Your task to perform on an android device: change text size in settings app Image 0: 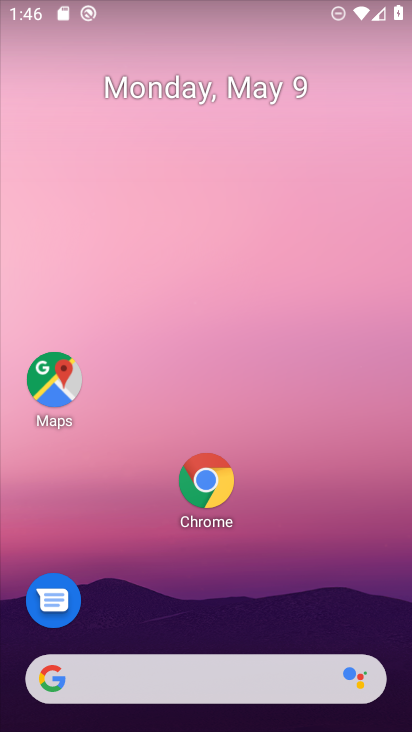
Step 0: drag from (194, 674) to (344, 131)
Your task to perform on an android device: change text size in settings app Image 1: 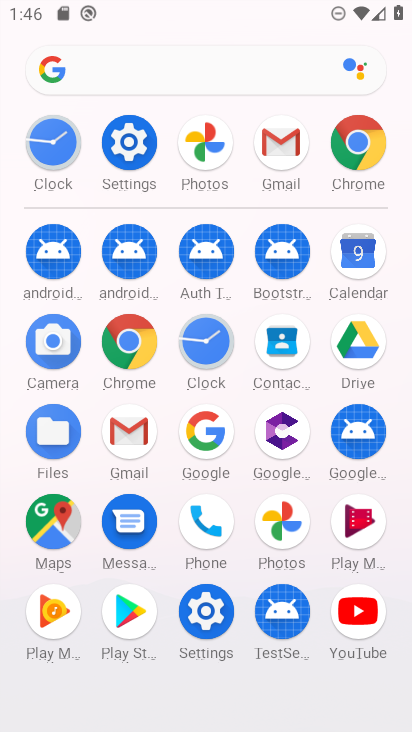
Step 1: click (125, 145)
Your task to perform on an android device: change text size in settings app Image 2: 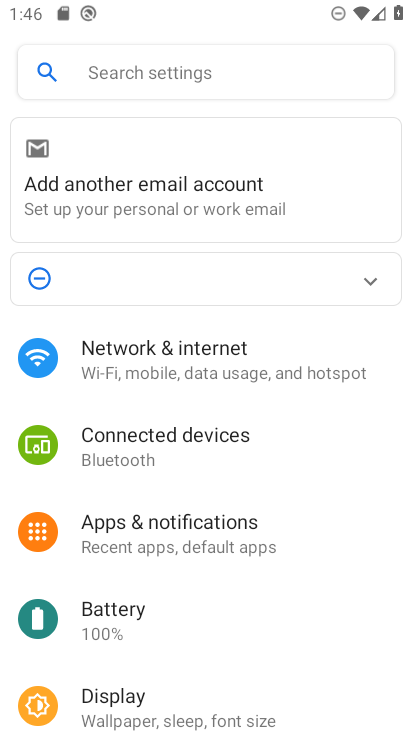
Step 2: drag from (203, 558) to (334, 275)
Your task to perform on an android device: change text size in settings app Image 3: 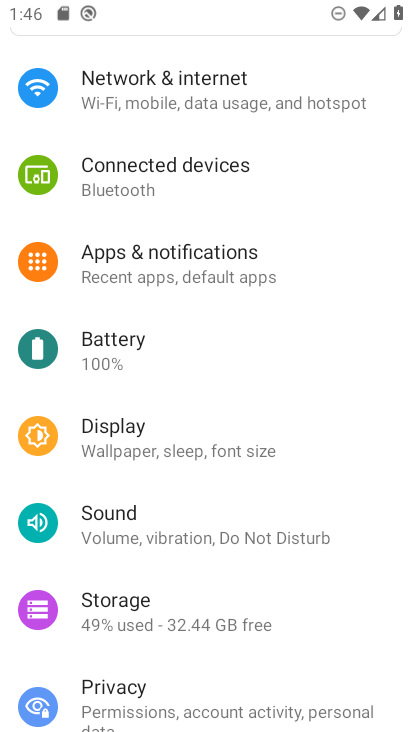
Step 3: click (216, 446)
Your task to perform on an android device: change text size in settings app Image 4: 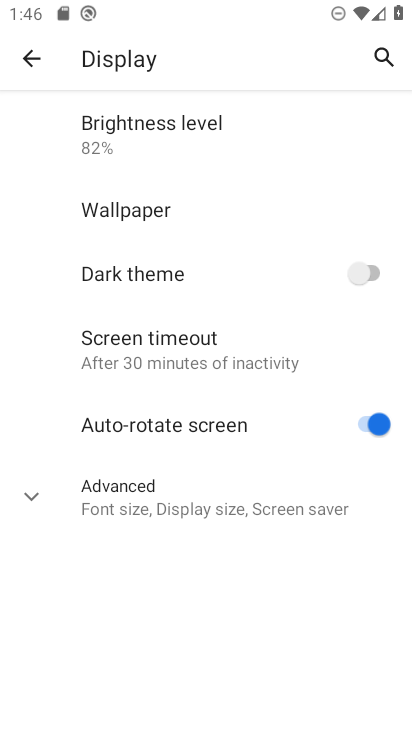
Step 4: click (151, 491)
Your task to perform on an android device: change text size in settings app Image 5: 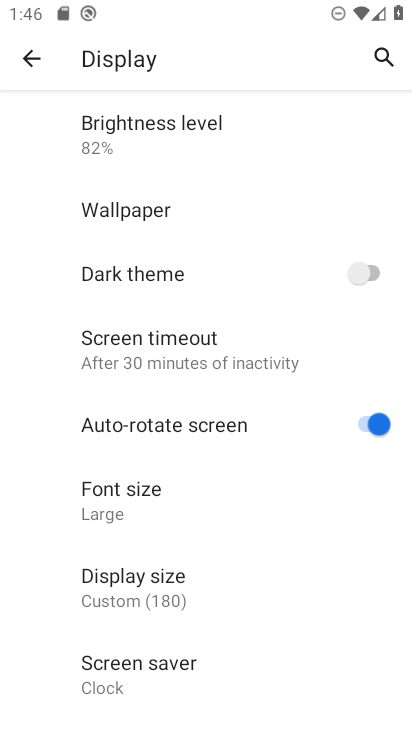
Step 5: click (133, 515)
Your task to perform on an android device: change text size in settings app Image 6: 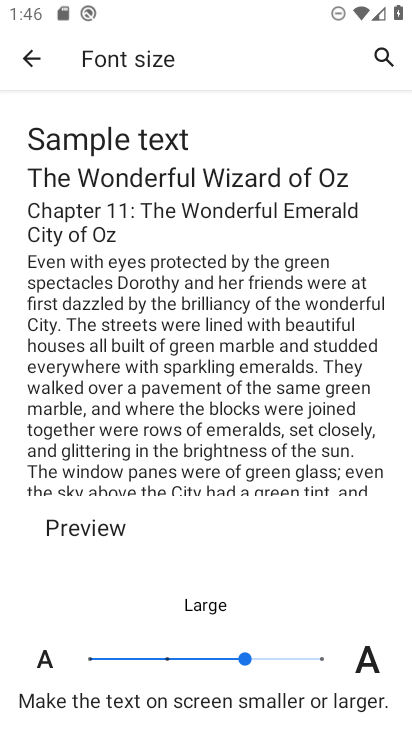
Step 6: click (164, 658)
Your task to perform on an android device: change text size in settings app Image 7: 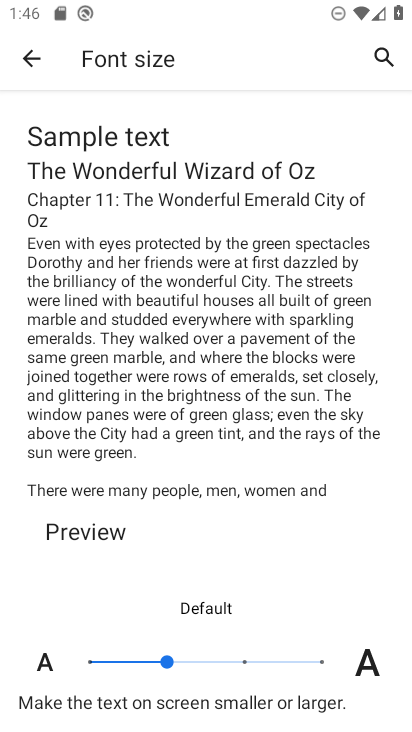
Step 7: task complete